Your task to perform on an android device: Open the calendar and show me this week's events Image 0: 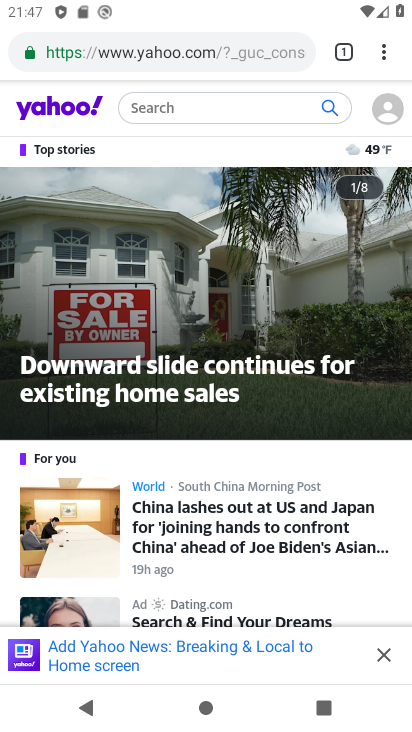
Step 0: press home button
Your task to perform on an android device: Open the calendar and show me this week's events Image 1: 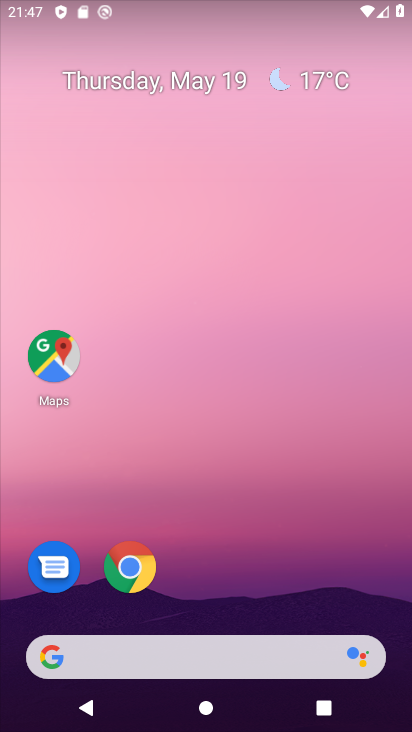
Step 1: drag from (338, 592) to (276, 161)
Your task to perform on an android device: Open the calendar and show me this week's events Image 2: 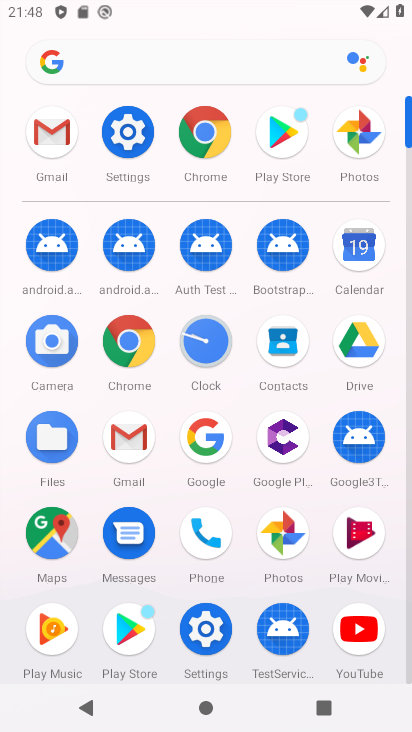
Step 2: click (369, 270)
Your task to perform on an android device: Open the calendar and show me this week's events Image 3: 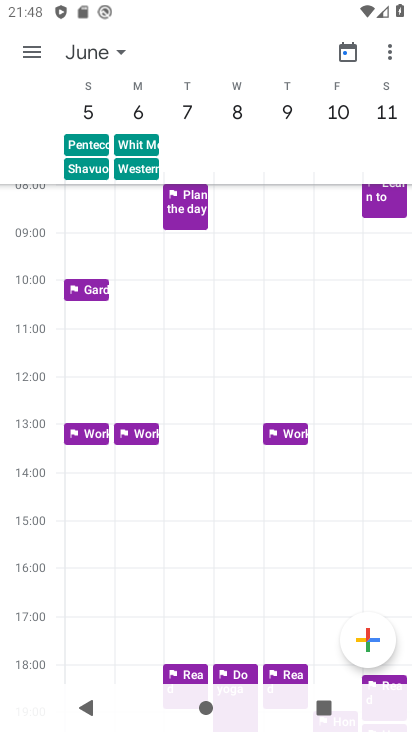
Step 3: click (26, 51)
Your task to perform on an android device: Open the calendar and show me this week's events Image 4: 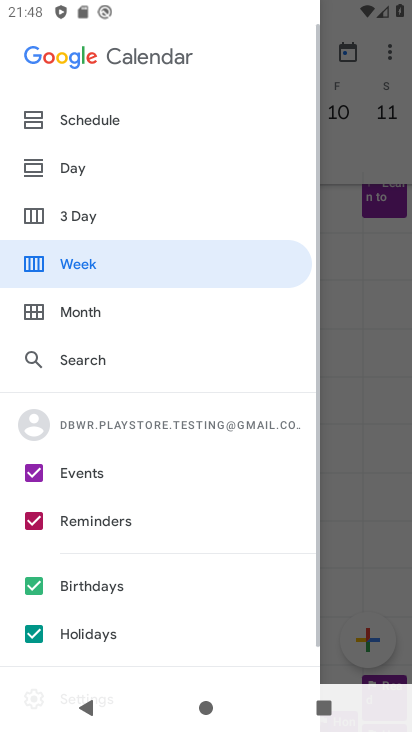
Step 4: click (349, 268)
Your task to perform on an android device: Open the calendar and show me this week's events Image 5: 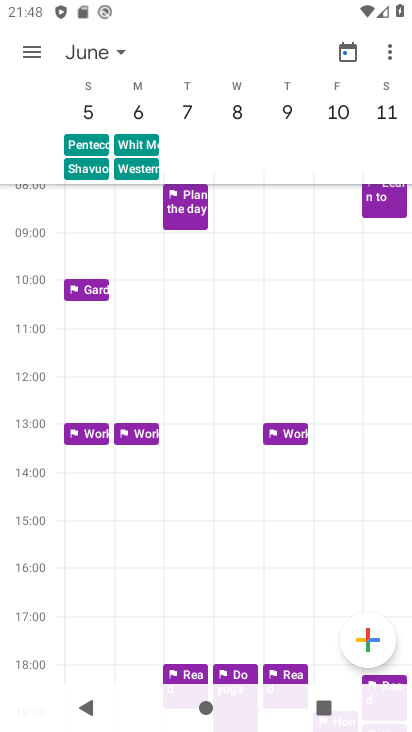
Step 5: click (122, 54)
Your task to perform on an android device: Open the calendar and show me this week's events Image 6: 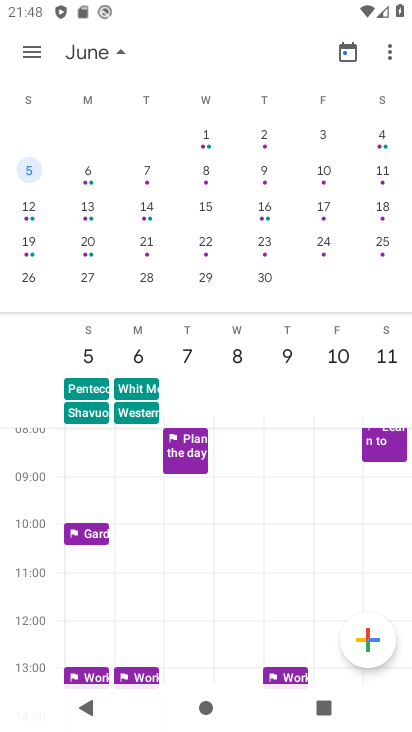
Step 6: drag from (99, 180) to (407, 270)
Your task to perform on an android device: Open the calendar and show me this week's events Image 7: 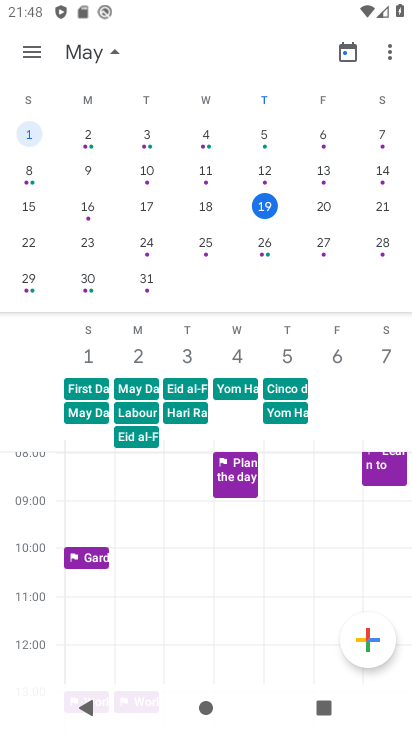
Step 7: click (272, 206)
Your task to perform on an android device: Open the calendar and show me this week's events Image 8: 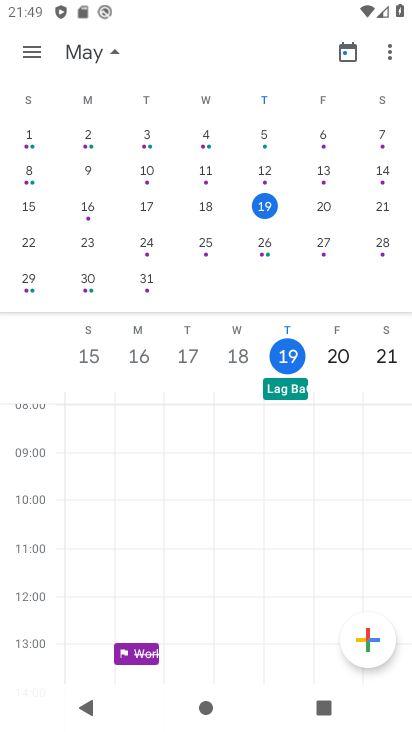
Step 8: task complete